Your task to perform on an android device: Go to calendar. Show me events next week Image 0: 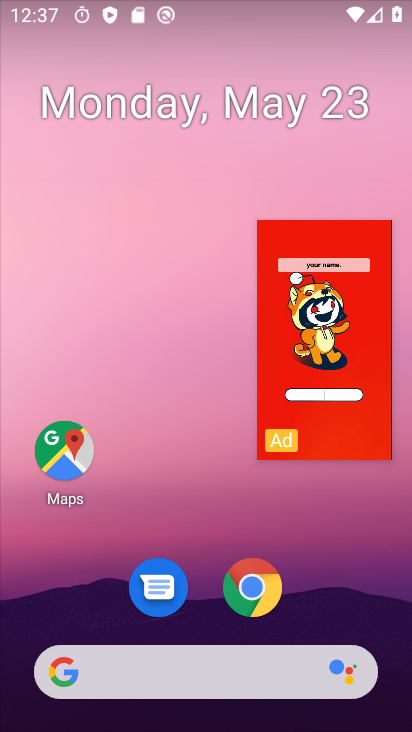
Step 0: click (306, 314)
Your task to perform on an android device: Go to calendar. Show me events next week Image 1: 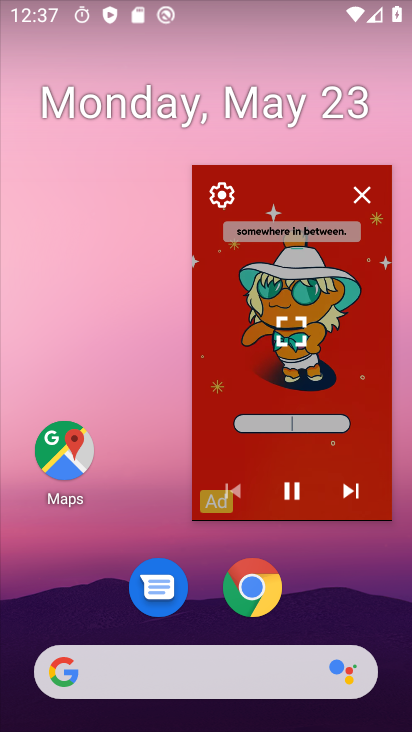
Step 1: click (295, 358)
Your task to perform on an android device: Go to calendar. Show me events next week Image 2: 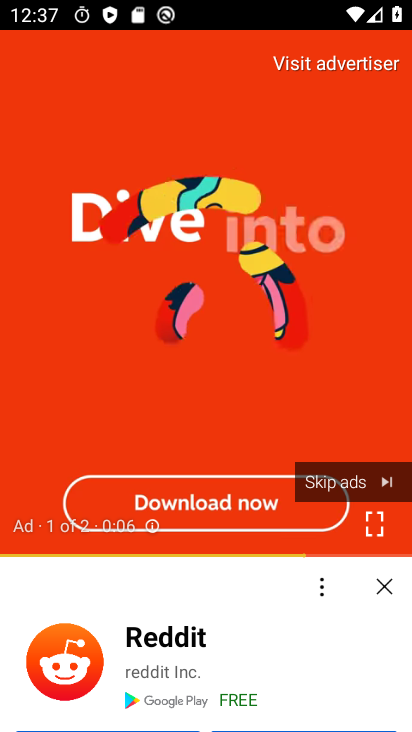
Step 2: click (195, 272)
Your task to perform on an android device: Go to calendar. Show me events next week Image 3: 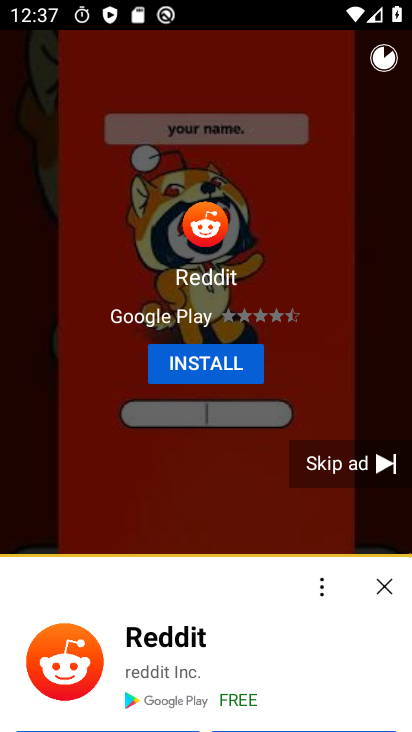
Step 3: click (360, 455)
Your task to perform on an android device: Go to calendar. Show me events next week Image 4: 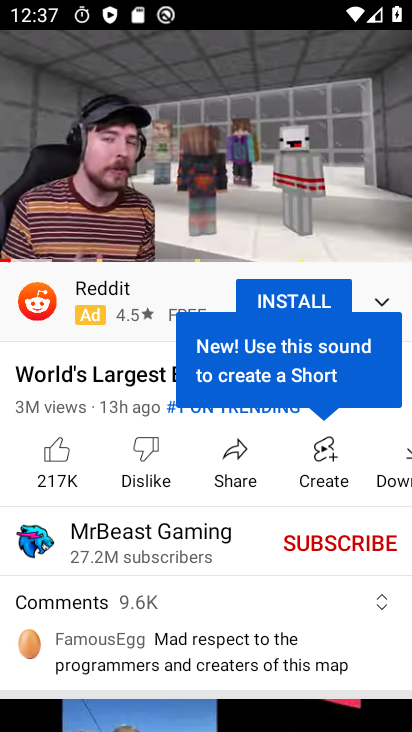
Step 4: click (177, 143)
Your task to perform on an android device: Go to calendar. Show me events next week Image 5: 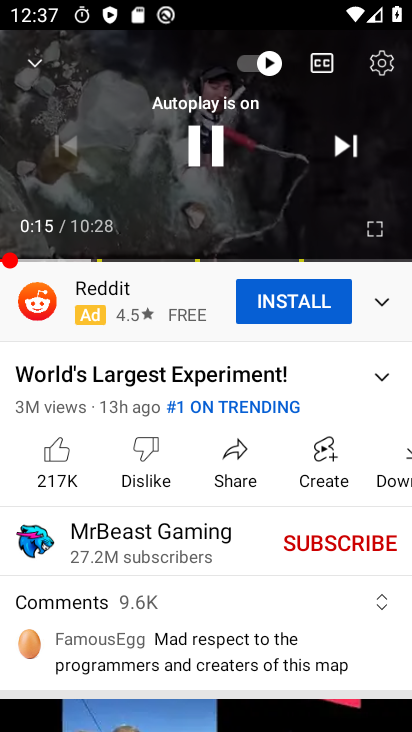
Step 5: click (203, 141)
Your task to perform on an android device: Go to calendar. Show me events next week Image 6: 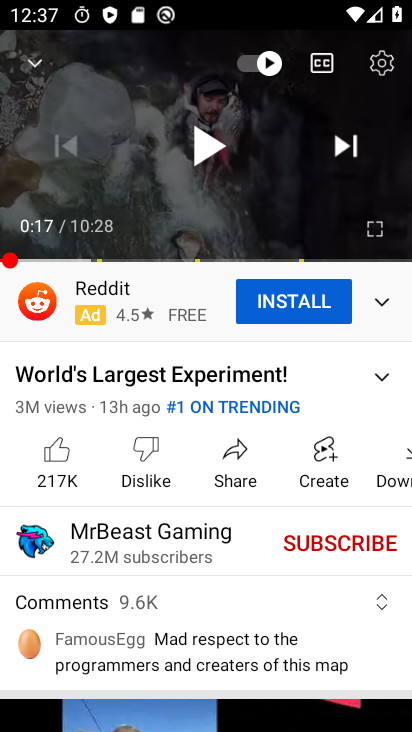
Step 6: press home button
Your task to perform on an android device: Go to calendar. Show me events next week Image 7: 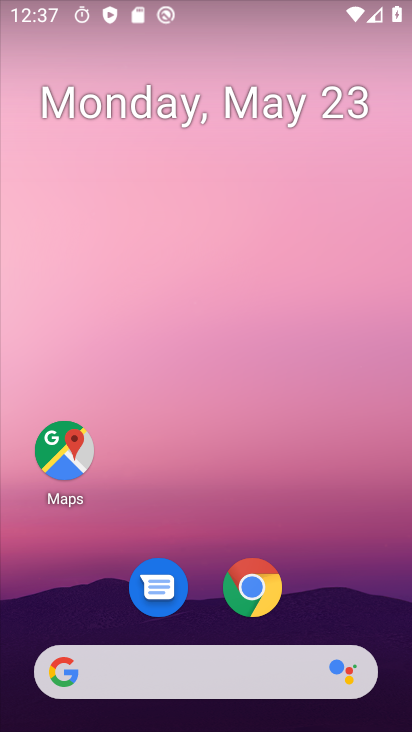
Step 7: drag from (198, 603) to (285, 2)
Your task to perform on an android device: Go to calendar. Show me events next week Image 8: 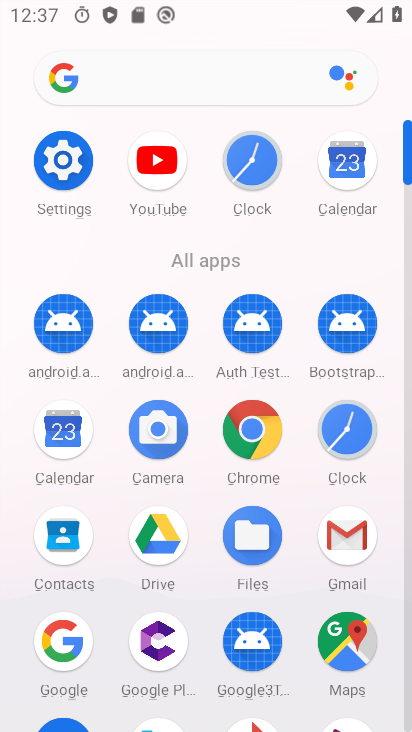
Step 8: click (56, 444)
Your task to perform on an android device: Go to calendar. Show me events next week Image 9: 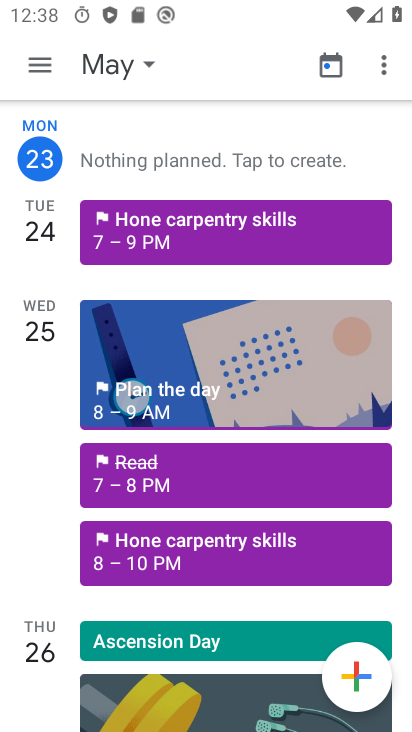
Step 9: click (134, 54)
Your task to perform on an android device: Go to calendar. Show me events next week Image 10: 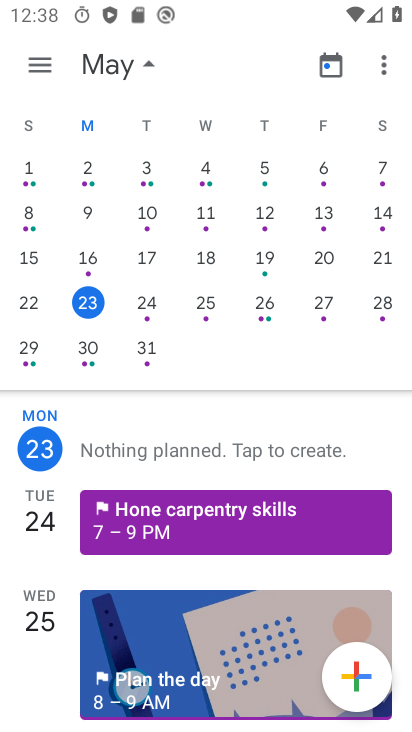
Step 10: click (195, 530)
Your task to perform on an android device: Go to calendar. Show me events next week Image 11: 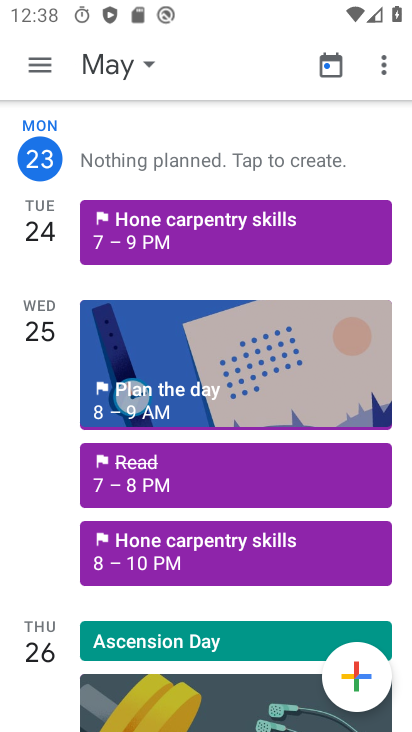
Step 11: click (114, 66)
Your task to perform on an android device: Go to calendar. Show me events next week Image 12: 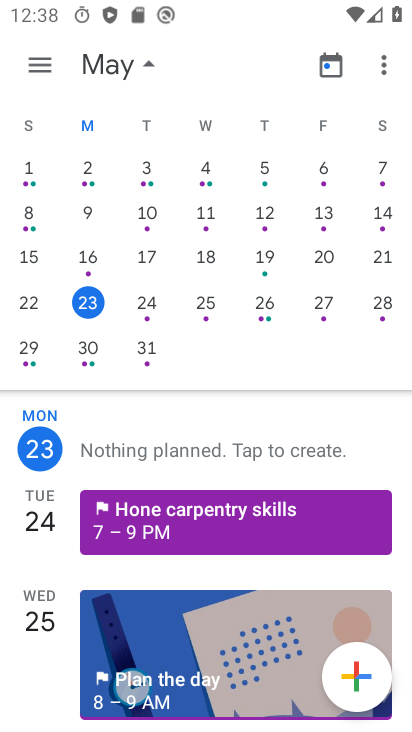
Step 12: click (86, 349)
Your task to perform on an android device: Go to calendar. Show me events next week Image 13: 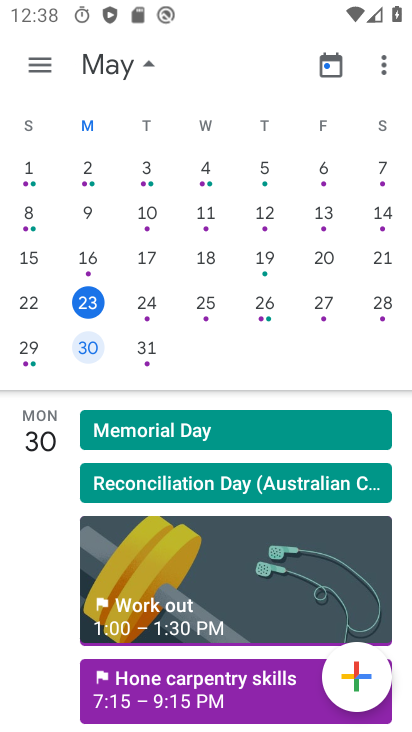
Step 13: click (173, 484)
Your task to perform on an android device: Go to calendar. Show me events next week Image 14: 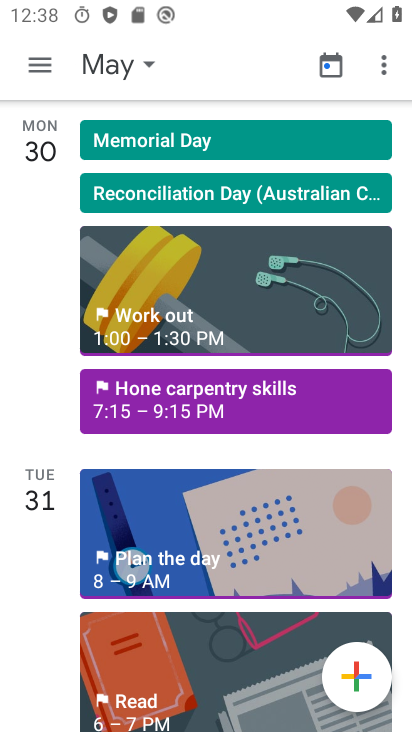
Step 14: task complete